Your task to perform on an android device: Open Youtube and go to the subscriptions tab Image 0: 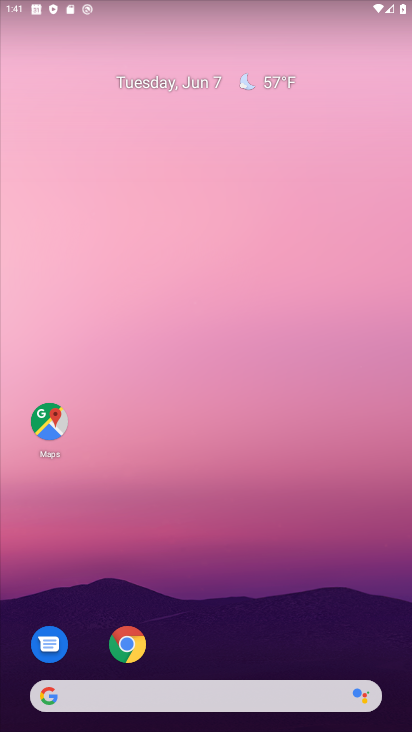
Step 0: drag from (198, 700) to (65, 140)
Your task to perform on an android device: Open Youtube and go to the subscriptions tab Image 1: 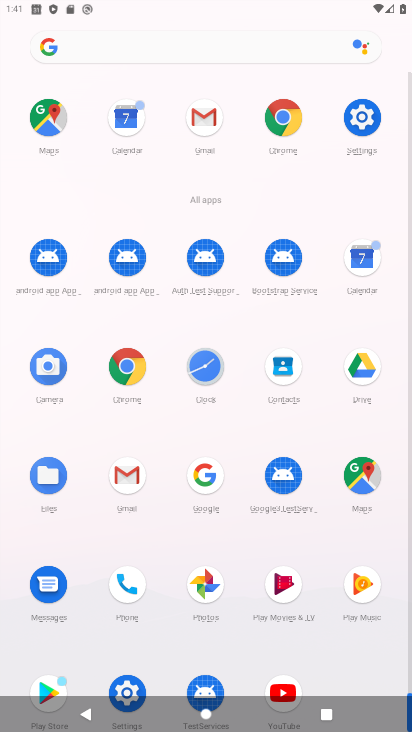
Step 1: drag from (291, 622) to (230, 157)
Your task to perform on an android device: Open Youtube and go to the subscriptions tab Image 2: 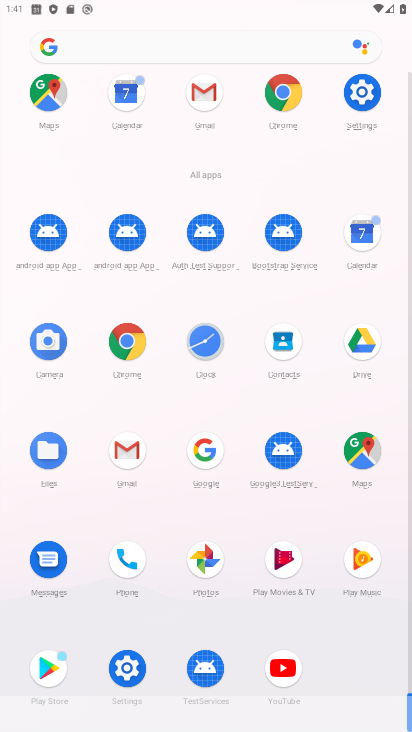
Step 2: click (281, 674)
Your task to perform on an android device: Open Youtube and go to the subscriptions tab Image 3: 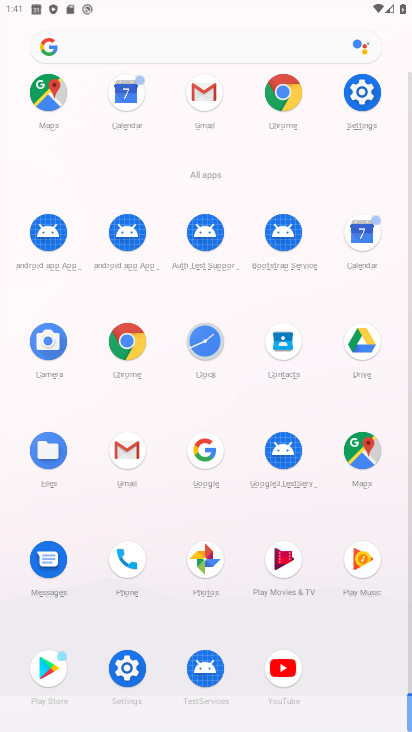
Step 3: click (281, 674)
Your task to perform on an android device: Open Youtube and go to the subscriptions tab Image 4: 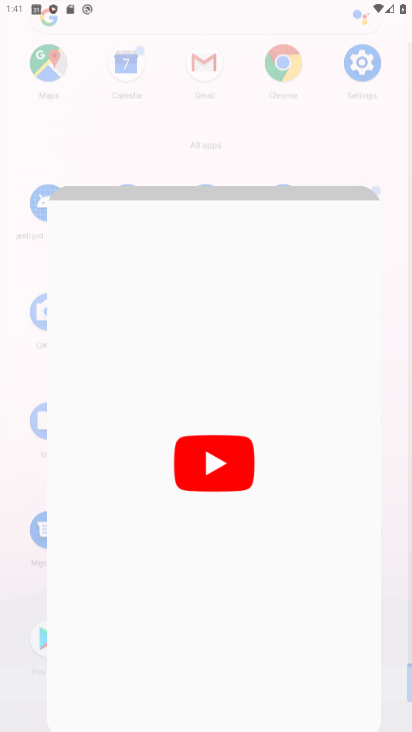
Step 4: click (281, 674)
Your task to perform on an android device: Open Youtube and go to the subscriptions tab Image 5: 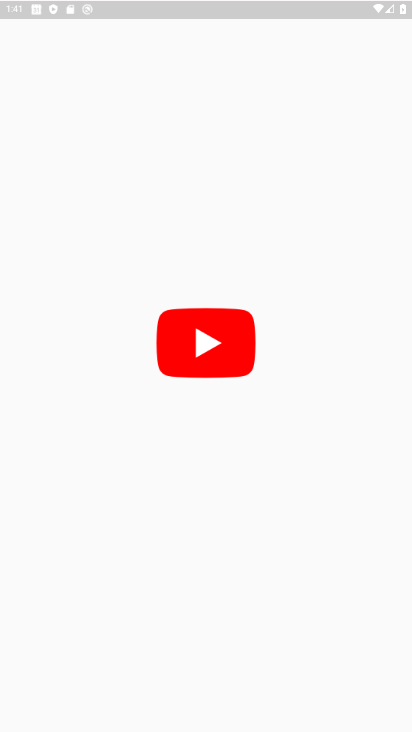
Step 5: click (281, 674)
Your task to perform on an android device: Open Youtube and go to the subscriptions tab Image 6: 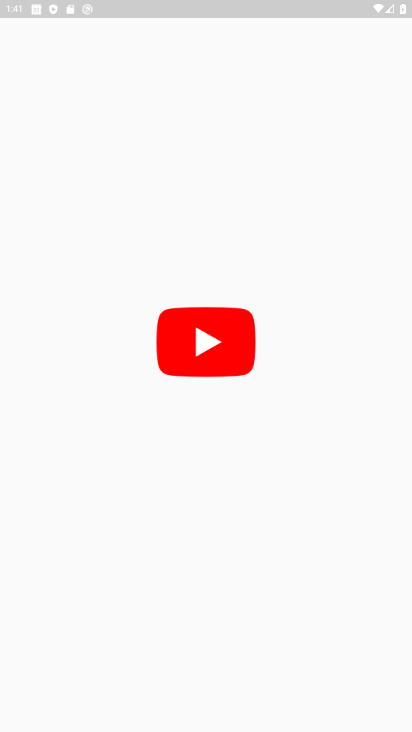
Step 6: click (279, 671)
Your task to perform on an android device: Open Youtube and go to the subscriptions tab Image 7: 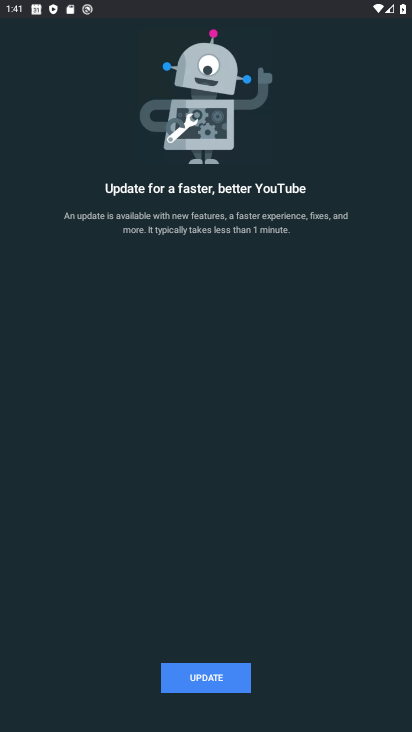
Step 7: click (221, 678)
Your task to perform on an android device: Open Youtube and go to the subscriptions tab Image 8: 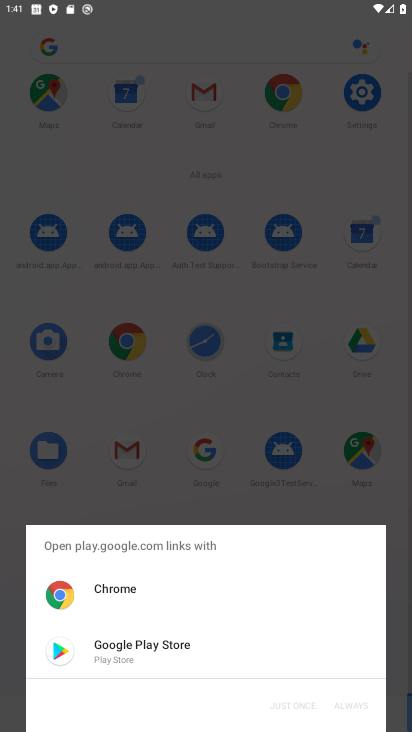
Step 8: click (107, 643)
Your task to perform on an android device: Open Youtube and go to the subscriptions tab Image 9: 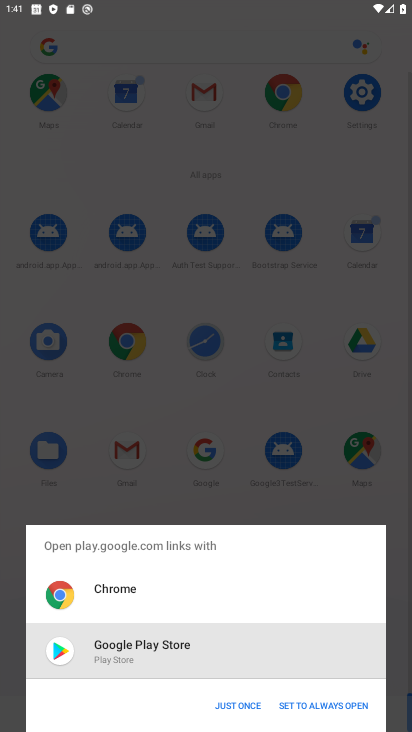
Step 9: click (121, 651)
Your task to perform on an android device: Open Youtube and go to the subscriptions tab Image 10: 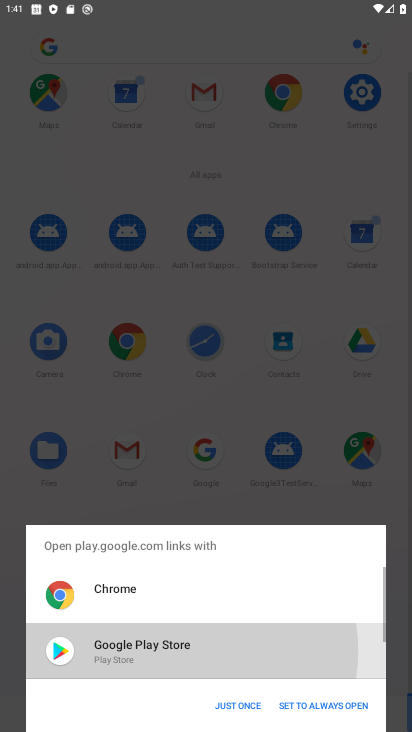
Step 10: click (121, 651)
Your task to perform on an android device: Open Youtube and go to the subscriptions tab Image 11: 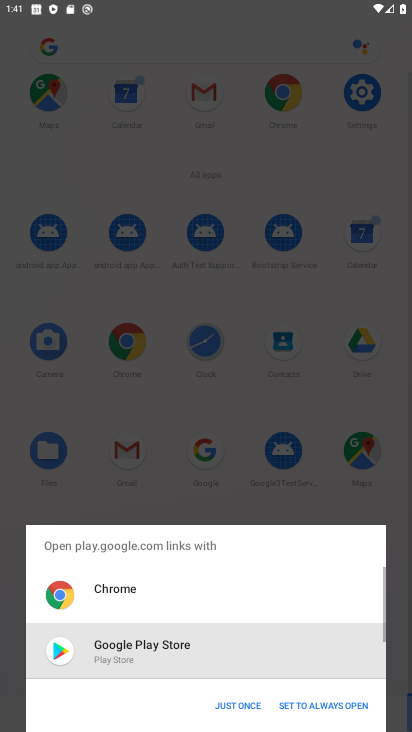
Step 11: click (121, 651)
Your task to perform on an android device: Open Youtube and go to the subscriptions tab Image 12: 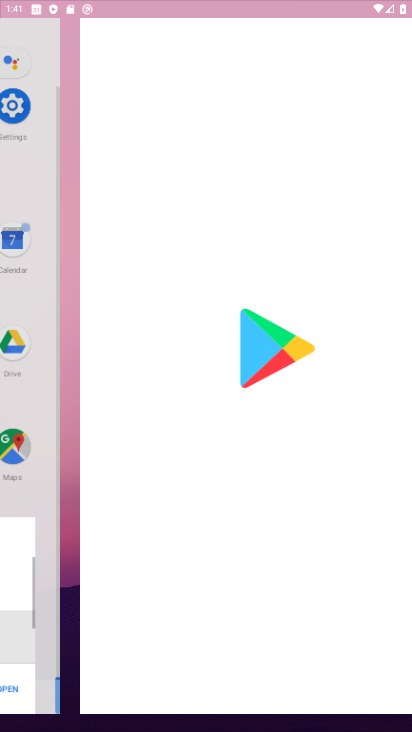
Step 12: click (121, 651)
Your task to perform on an android device: Open Youtube and go to the subscriptions tab Image 13: 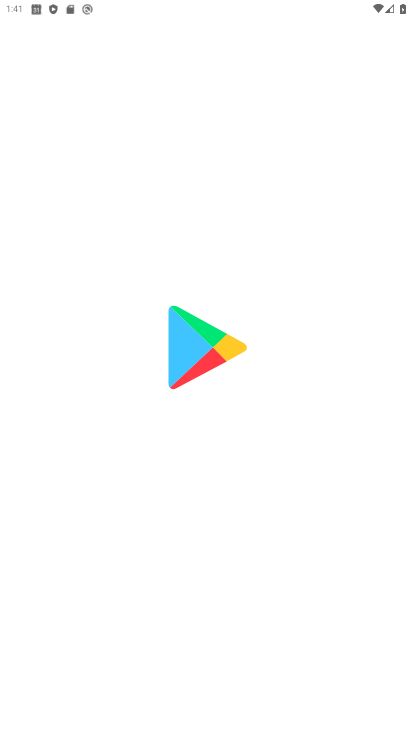
Step 13: click (121, 651)
Your task to perform on an android device: Open Youtube and go to the subscriptions tab Image 14: 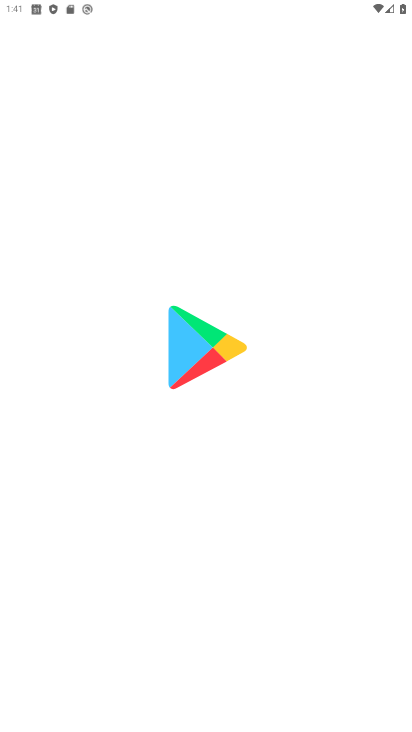
Step 14: click (121, 651)
Your task to perform on an android device: Open Youtube and go to the subscriptions tab Image 15: 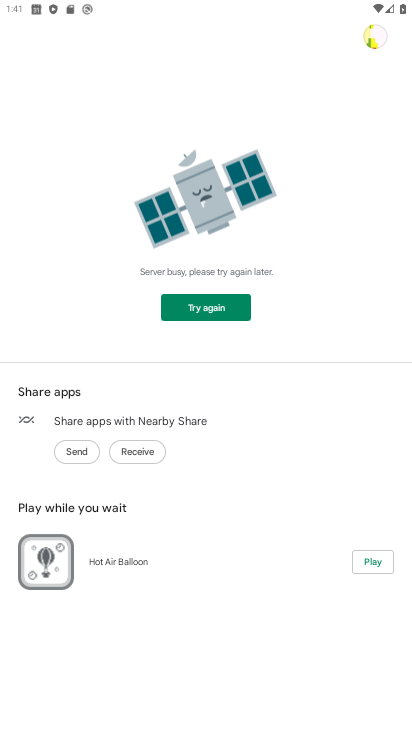
Step 15: task complete